Your task to perform on an android device: all mails in gmail Image 0: 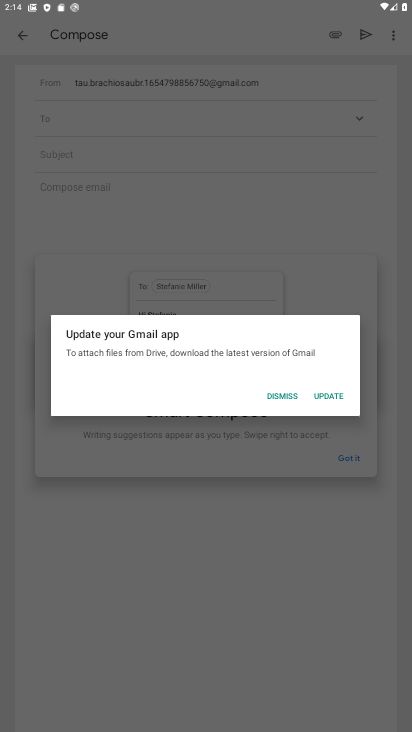
Step 0: press home button
Your task to perform on an android device: all mails in gmail Image 1: 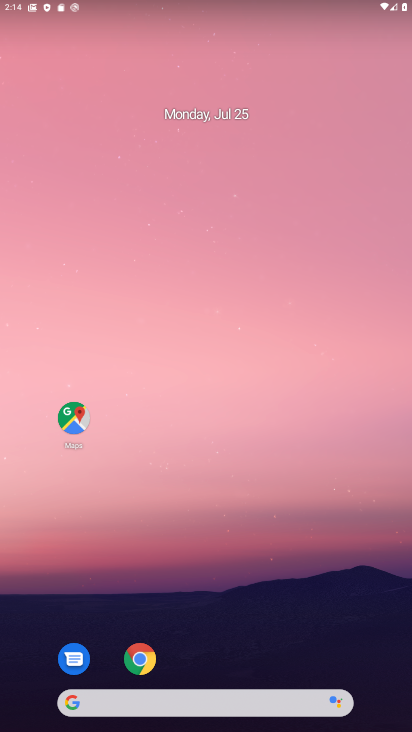
Step 1: drag from (200, 610) to (212, 211)
Your task to perform on an android device: all mails in gmail Image 2: 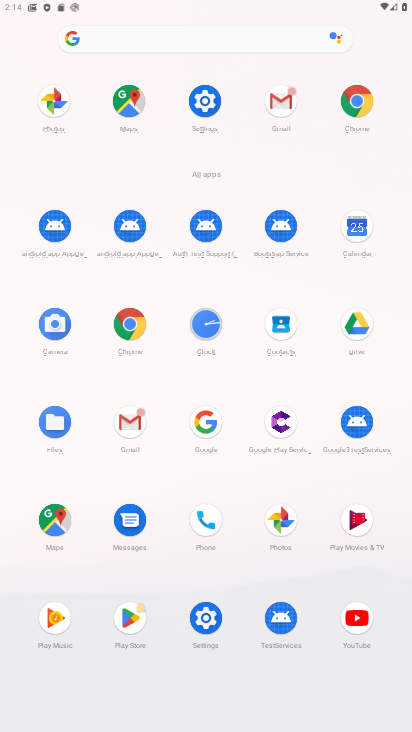
Step 2: click (119, 422)
Your task to perform on an android device: all mails in gmail Image 3: 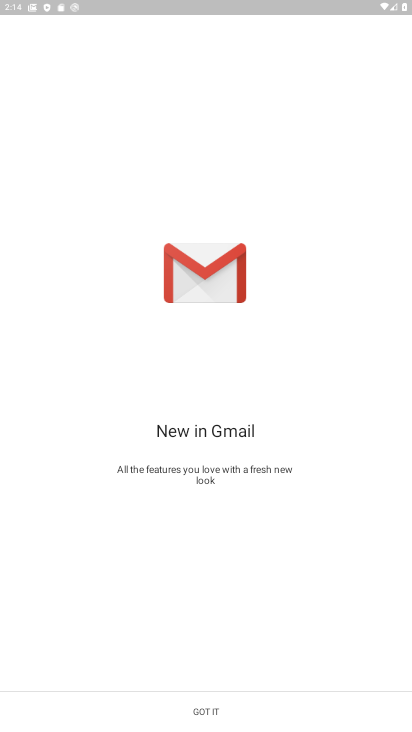
Step 3: click (224, 709)
Your task to perform on an android device: all mails in gmail Image 4: 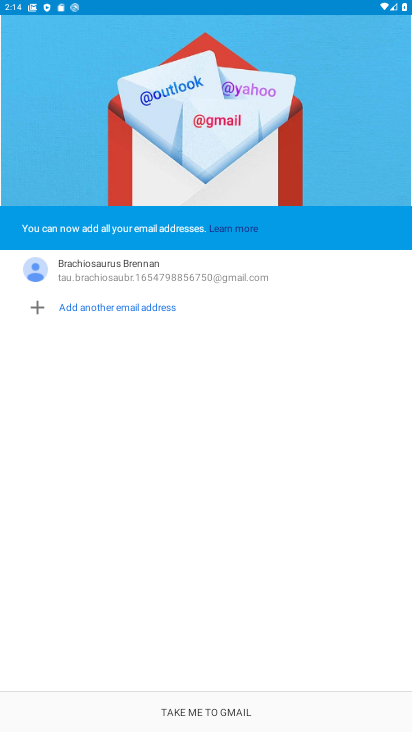
Step 4: click (215, 717)
Your task to perform on an android device: all mails in gmail Image 5: 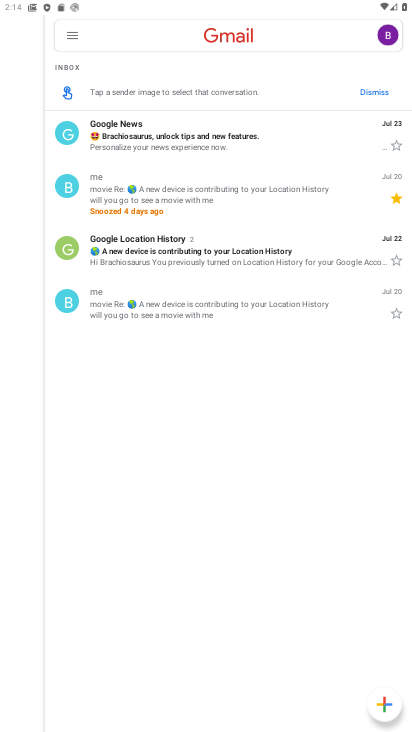
Step 5: click (74, 40)
Your task to perform on an android device: all mails in gmail Image 6: 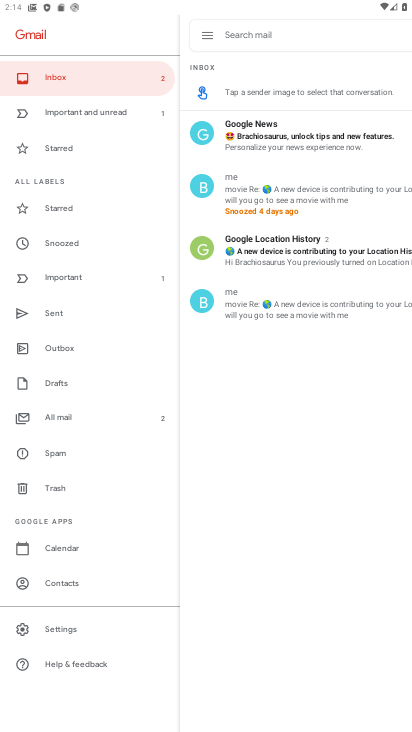
Step 6: click (65, 417)
Your task to perform on an android device: all mails in gmail Image 7: 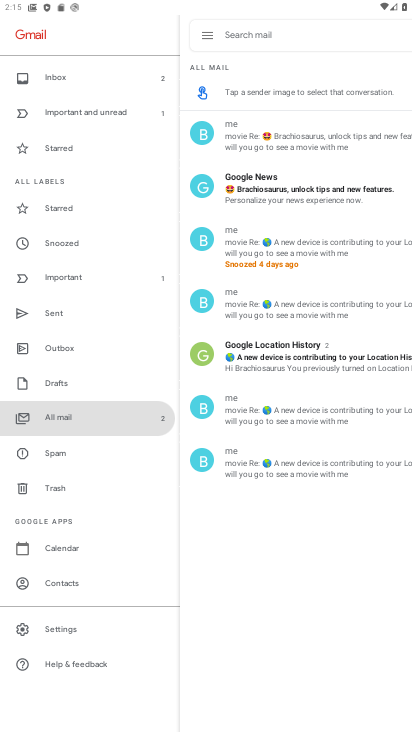
Step 7: task complete